Your task to perform on an android device: Open the Play Movies app and select the watchlist tab. Image 0: 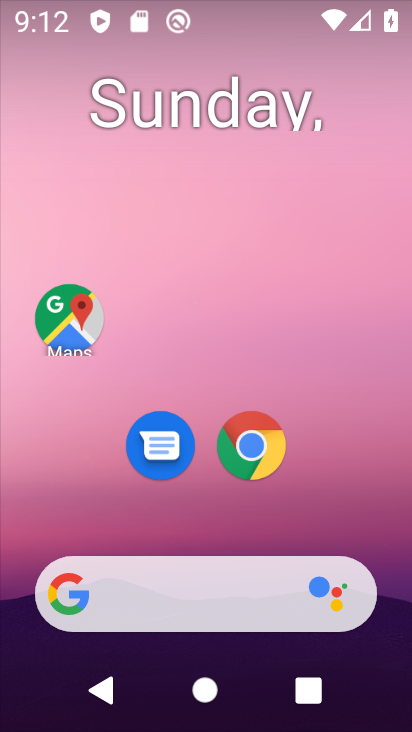
Step 0: drag from (98, 515) to (237, 19)
Your task to perform on an android device: Open the Play Movies app and select the watchlist tab. Image 1: 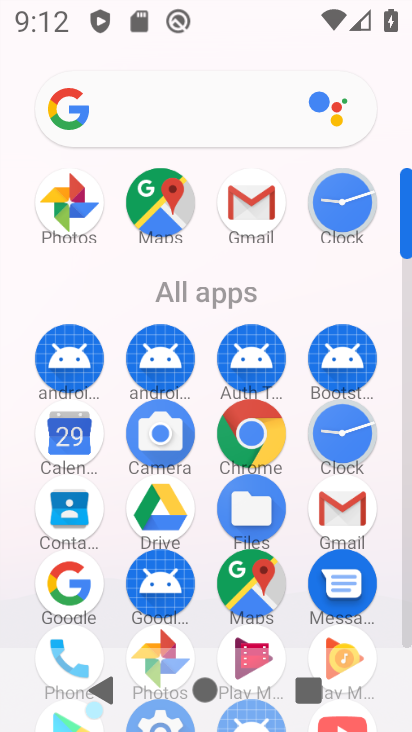
Step 1: drag from (165, 640) to (236, 347)
Your task to perform on an android device: Open the Play Movies app and select the watchlist tab. Image 2: 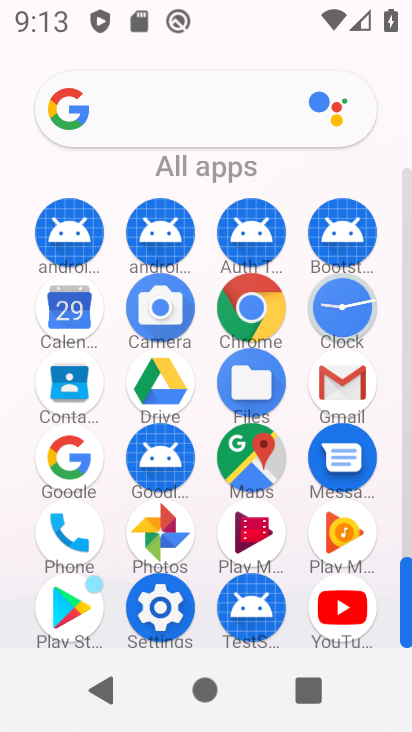
Step 2: click (248, 536)
Your task to perform on an android device: Open the Play Movies app and select the watchlist tab. Image 3: 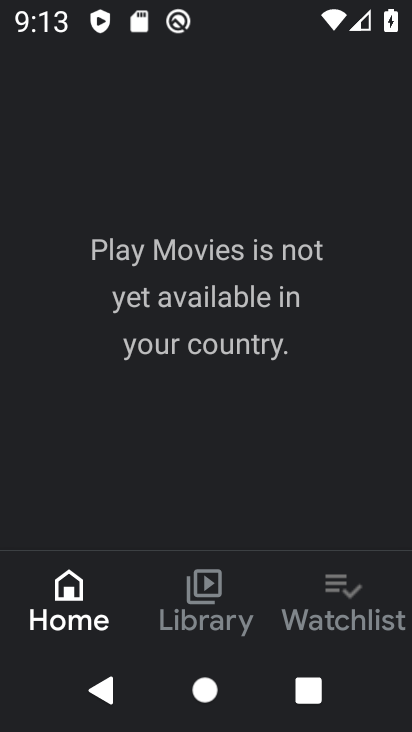
Step 3: click (359, 620)
Your task to perform on an android device: Open the Play Movies app and select the watchlist tab. Image 4: 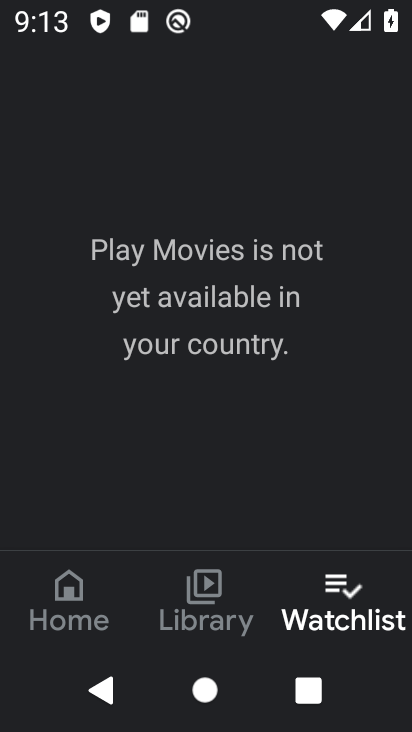
Step 4: task complete